Your task to perform on an android device: change the clock display to show seconds Image 0: 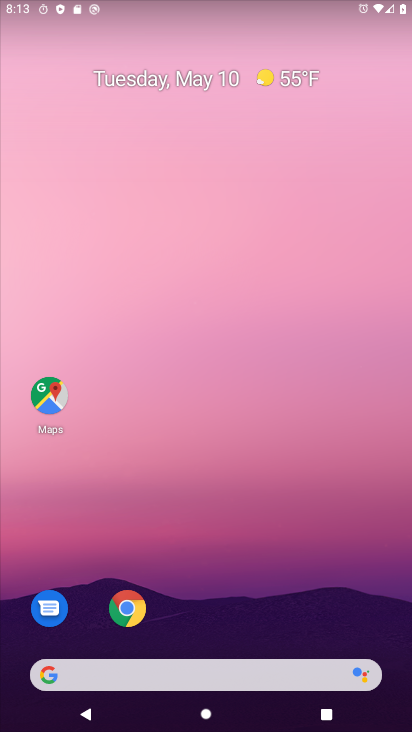
Step 0: drag from (249, 610) to (251, 120)
Your task to perform on an android device: change the clock display to show seconds Image 1: 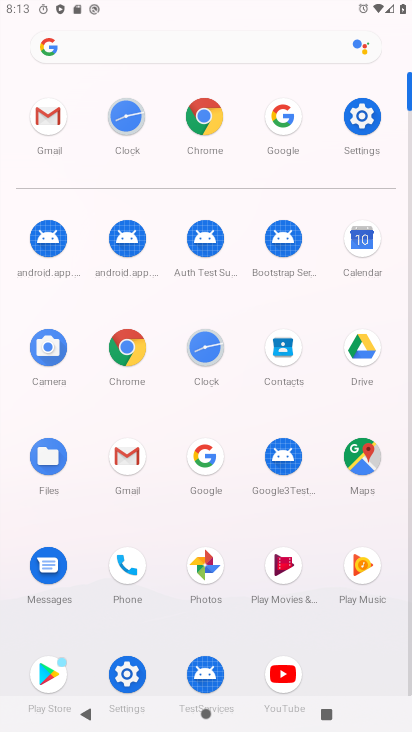
Step 1: click (126, 119)
Your task to perform on an android device: change the clock display to show seconds Image 2: 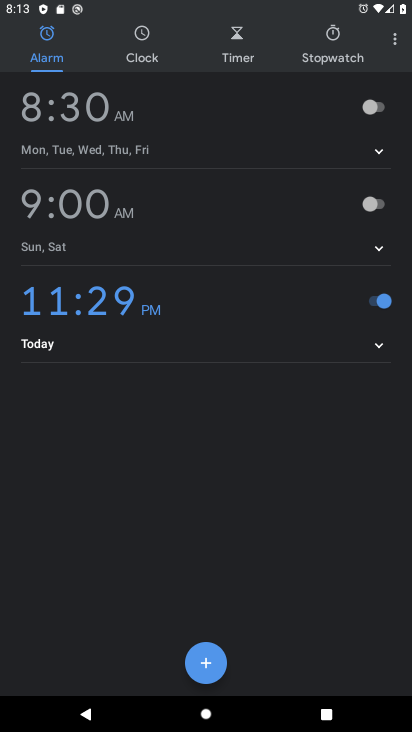
Step 2: click (396, 43)
Your task to perform on an android device: change the clock display to show seconds Image 3: 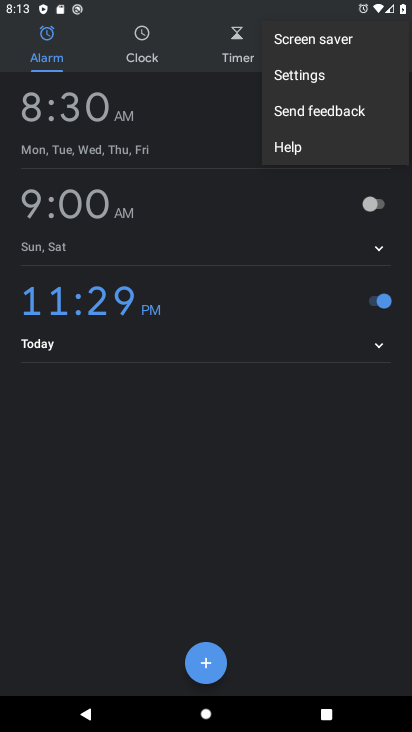
Step 3: click (297, 72)
Your task to perform on an android device: change the clock display to show seconds Image 4: 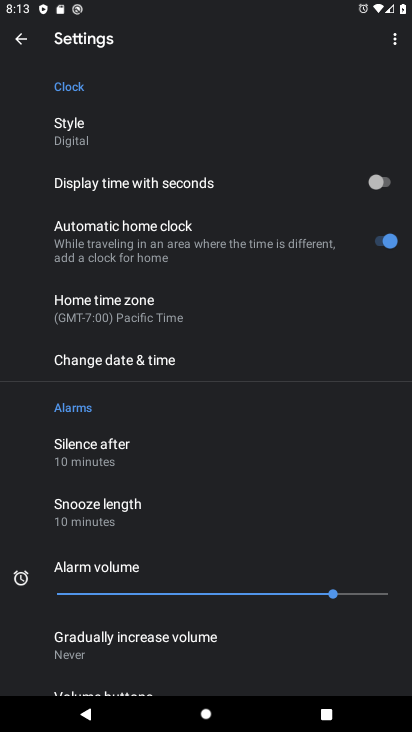
Step 4: click (375, 178)
Your task to perform on an android device: change the clock display to show seconds Image 5: 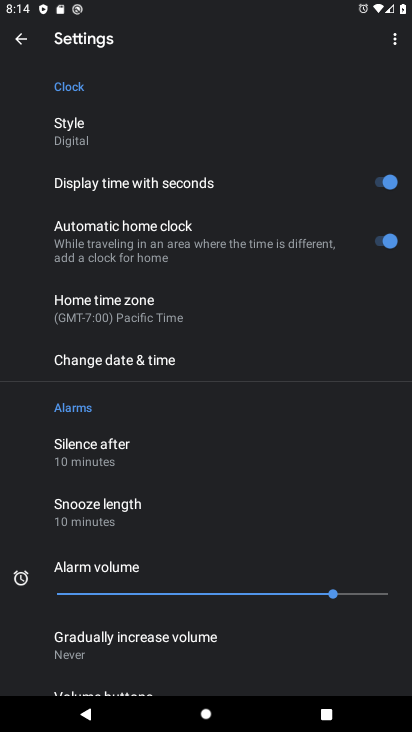
Step 5: task complete